Your task to perform on an android device: See recent photos Image 0: 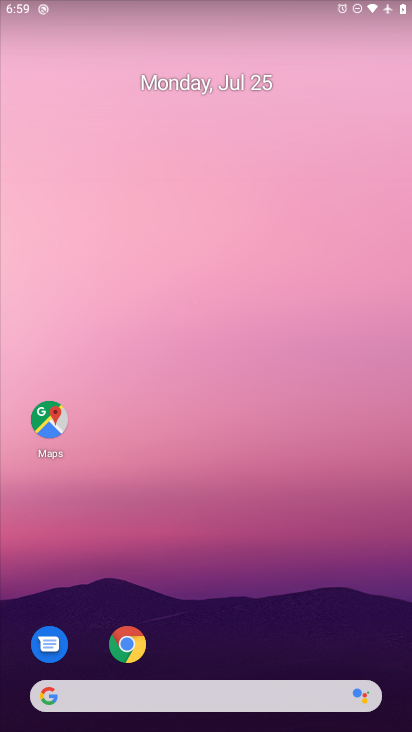
Step 0: drag from (255, 655) to (354, 222)
Your task to perform on an android device: See recent photos Image 1: 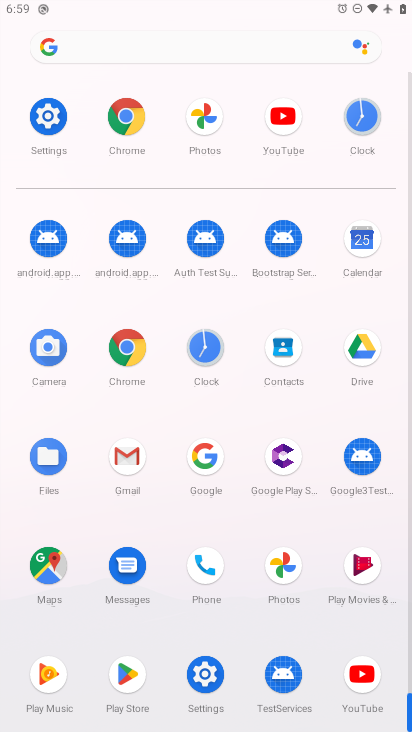
Step 1: click (204, 120)
Your task to perform on an android device: See recent photos Image 2: 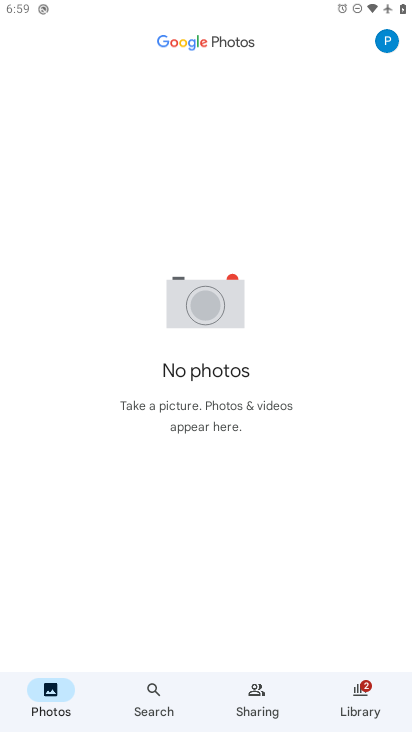
Step 2: task complete